Your task to perform on an android device: turn smart compose on in the gmail app Image 0: 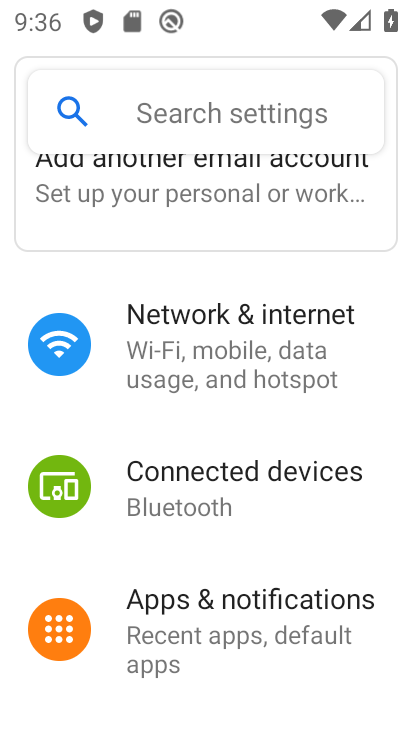
Step 0: drag from (340, 700) to (340, 94)
Your task to perform on an android device: turn smart compose on in the gmail app Image 1: 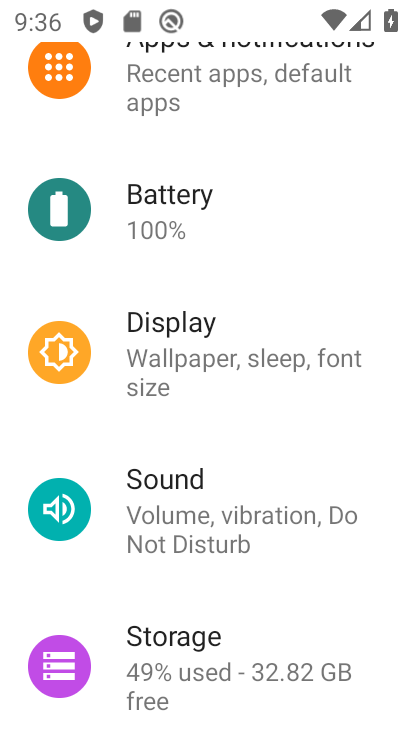
Step 1: press home button
Your task to perform on an android device: turn smart compose on in the gmail app Image 2: 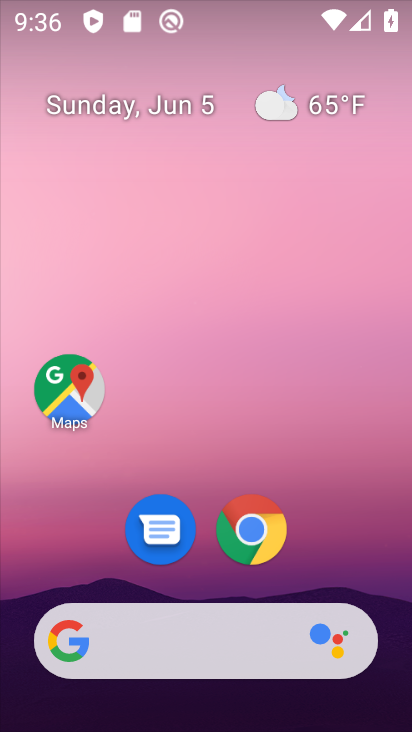
Step 2: drag from (163, 719) to (195, 16)
Your task to perform on an android device: turn smart compose on in the gmail app Image 3: 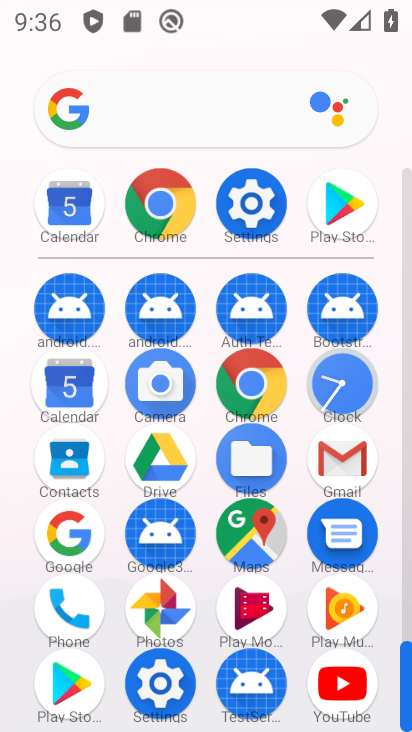
Step 3: click (334, 450)
Your task to perform on an android device: turn smart compose on in the gmail app Image 4: 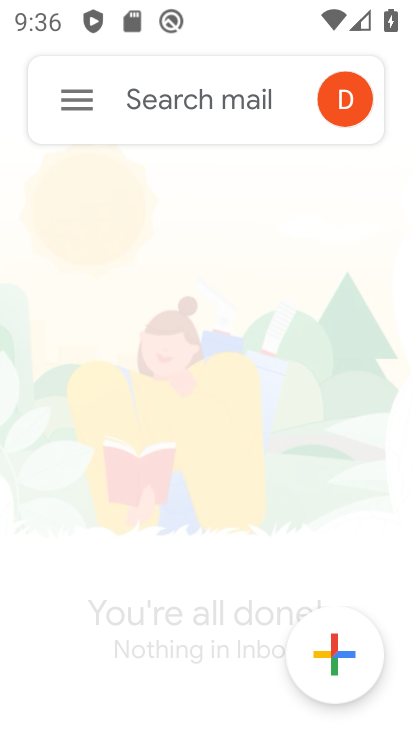
Step 4: drag from (206, 656) to (164, 38)
Your task to perform on an android device: turn smart compose on in the gmail app Image 5: 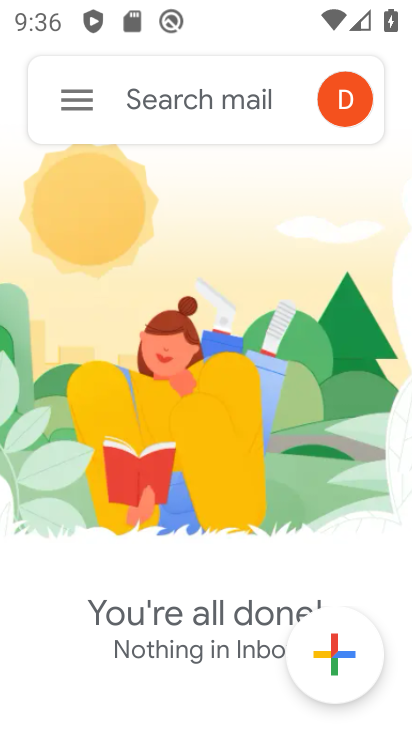
Step 5: click (69, 112)
Your task to perform on an android device: turn smart compose on in the gmail app Image 6: 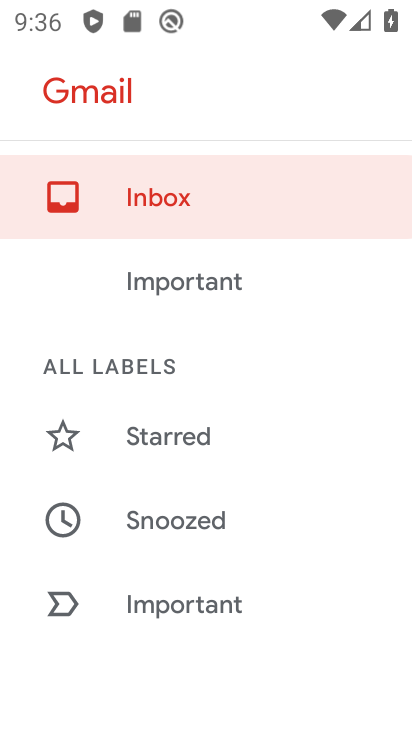
Step 6: drag from (250, 591) to (339, 67)
Your task to perform on an android device: turn smart compose on in the gmail app Image 7: 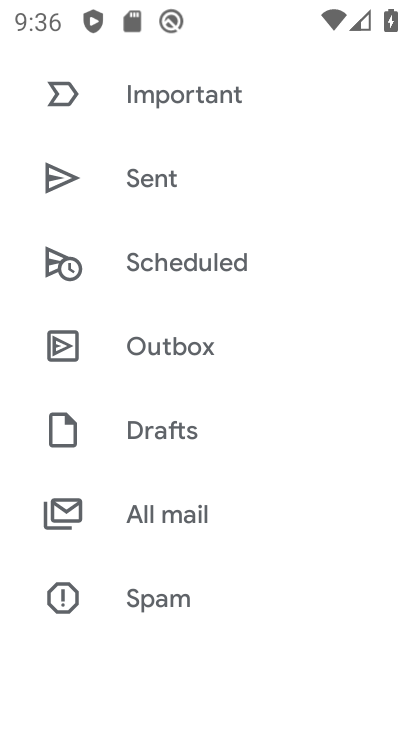
Step 7: drag from (262, 415) to (335, 0)
Your task to perform on an android device: turn smart compose on in the gmail app Image 8: 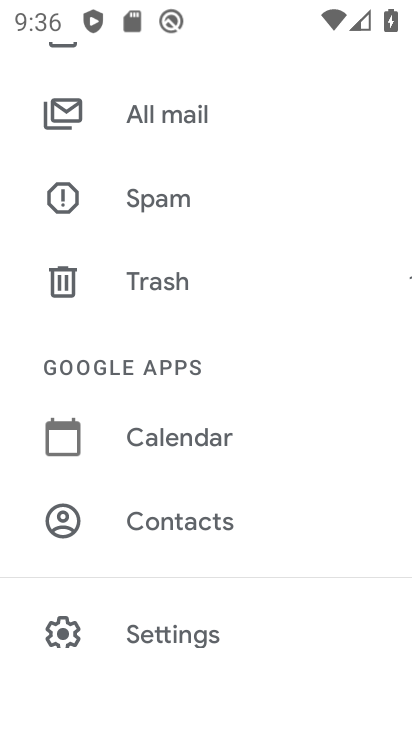
Step 8: drag from (266, 544) to (347, 62)
Your task to perform on an android device: turn smart compose on in the gmail app Image 9: 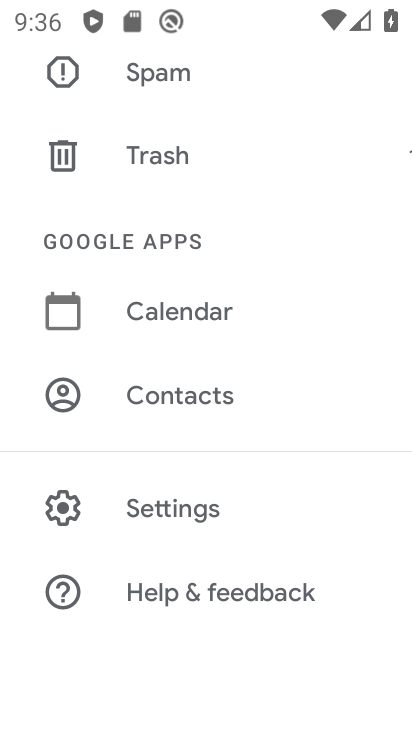
Step 9: click (247, 508)
Your task to perform on an android device: turn smart compose on in the gmail app Image 10: 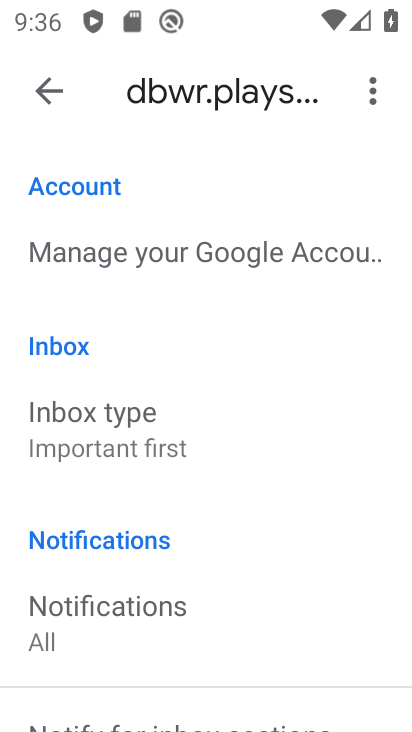
Step 10: task complete